Your task to perform on an android device: turn off translation in the chrome app Image 0: 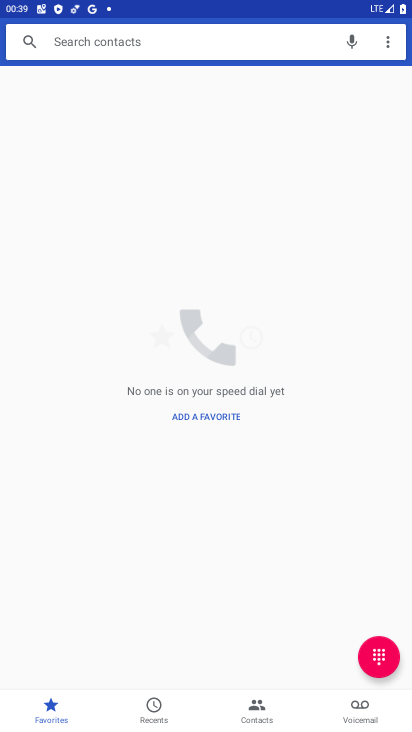
Step 0: press home button
Your task to perform on an android device: turn off translation in the chrome app Image 1: 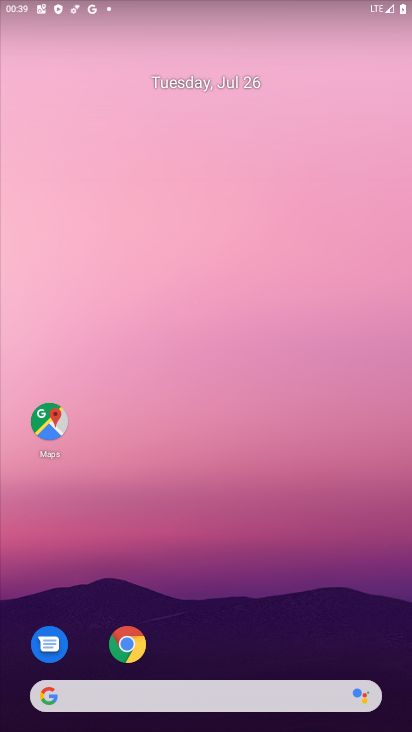
Step 1: click (122, 650)
Your task to perform on an android device: turn off translation in the chrome app Image 2: 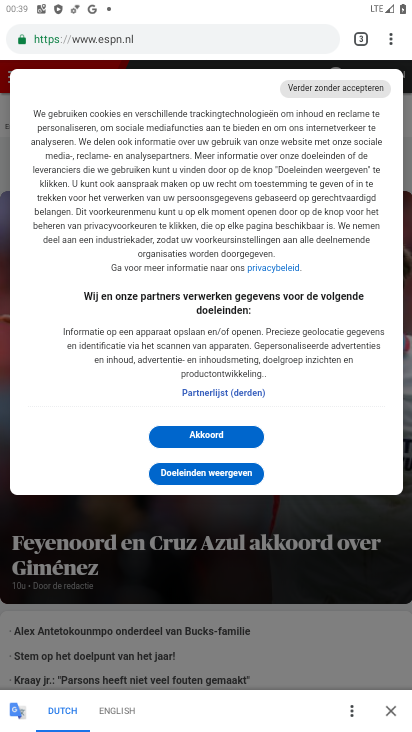
Step 2: click (394, 39)
Your task to perform on an android device: turn off translation in the chrome app Image 3: 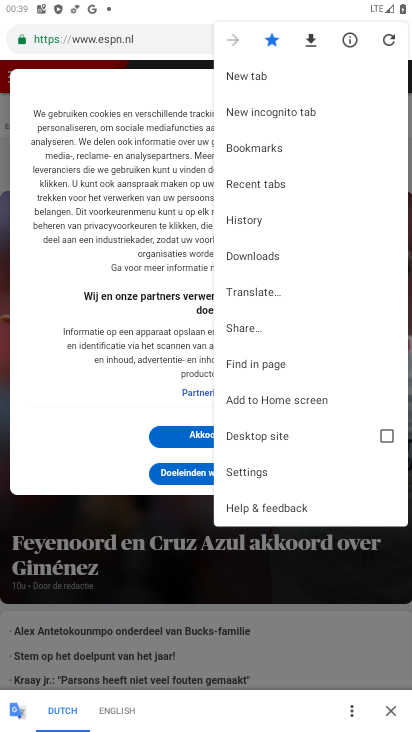
Step 3: click (245, 473)
Your task to perform on an android device: turn off translation in the chrome app Image 4: 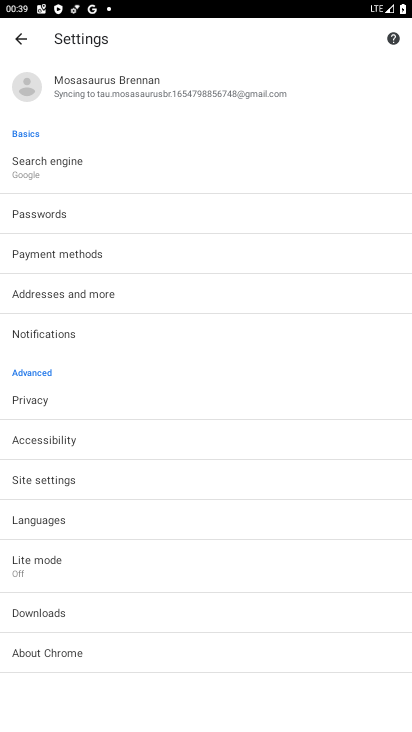
Step 4: click (60, 517)
Your task to perform on an android device: turn off translation in the chrome app Image 5: 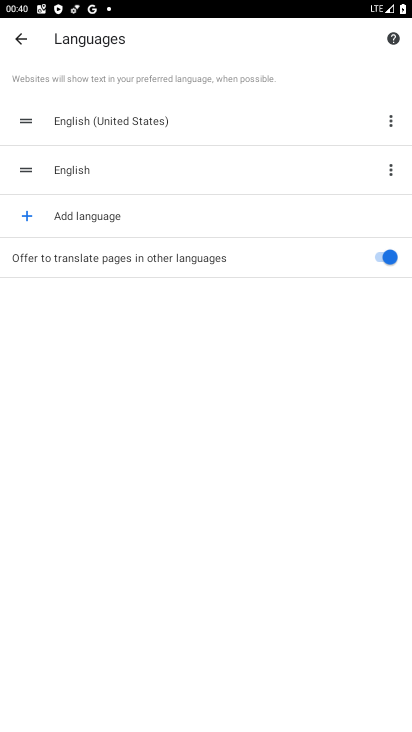
Step 5: click (388, 256)
Your task to perform on an android device: turn off translation in the chrome app Image 6: 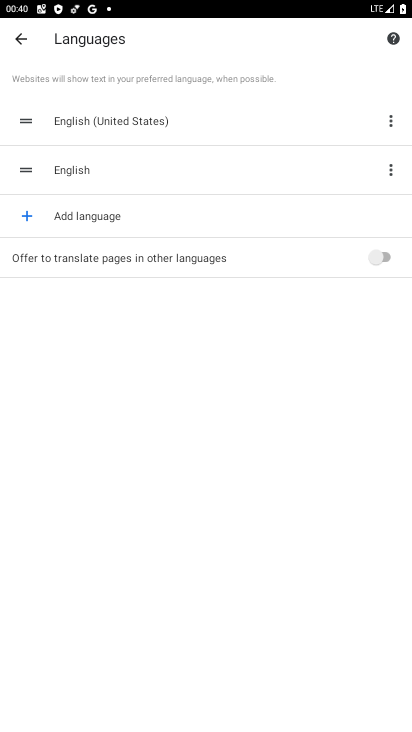
Step 6: task complete